Your task to perform on an android device: see tabs open on other devices in the chrome app Image 0: 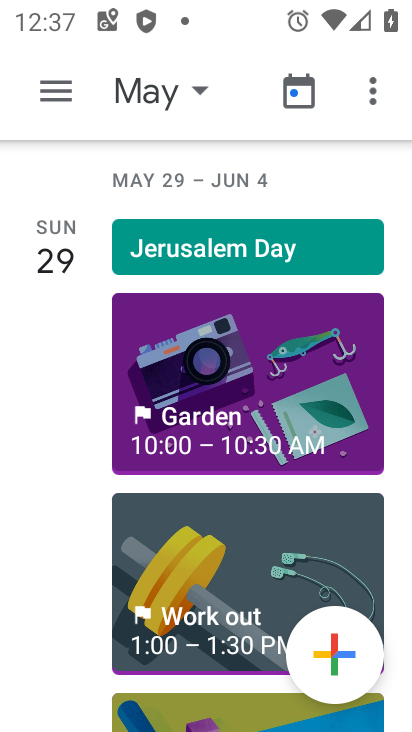
Step 0: press home button
Your task to perform on an android device: see tabs open on other devices in the chrome app Image 1: 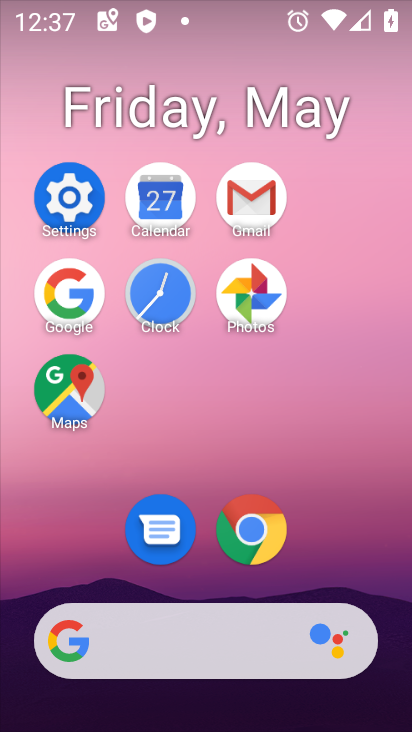
Step 1: click (248, 545)
Your task to perform on an android device: see tabs open on other devices in the chrome app Image 2: 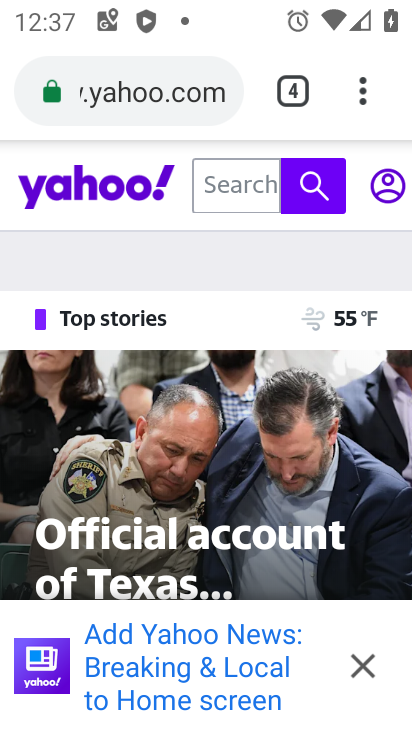
Step 2: click (360, 84)
Your task to perform on an android device: see tabs open on other devices in the chrome app Image 3: 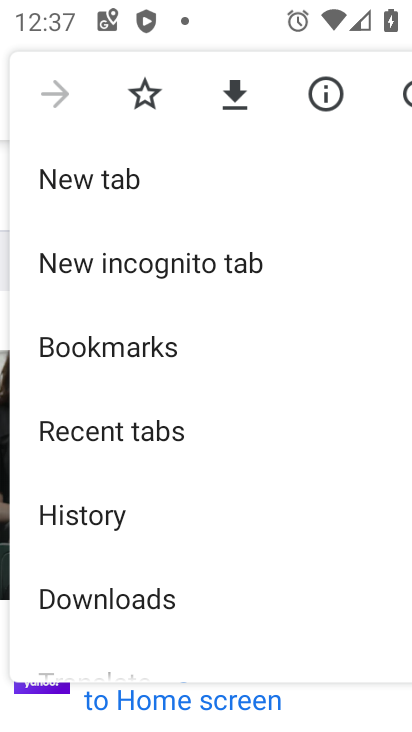
Step 3: click (206, 433)
Your task to perform on an android device: see tabs open on other devices in the chrome app Image 4: 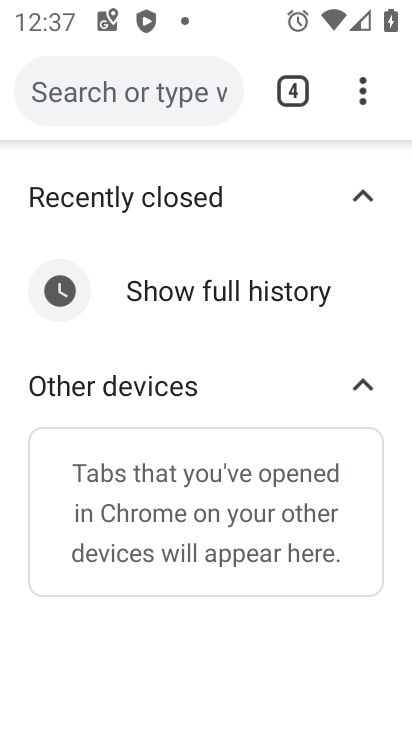
Step 4: task complete